Your task to perform on an android device: Search for Mexican restaurants on Maps Image 0: 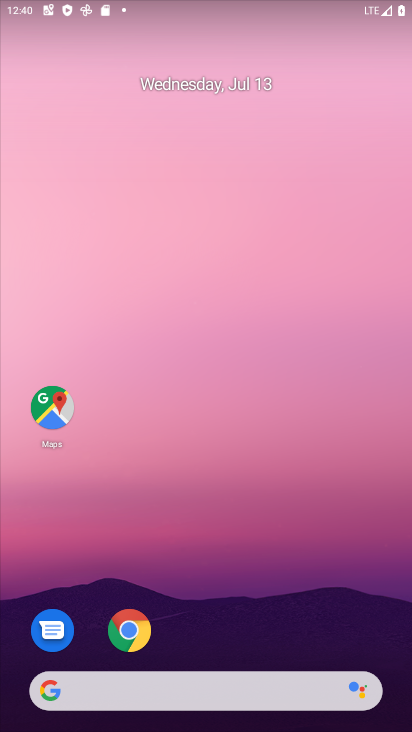
Step 0: drag from (367, 648) to (264, 29)
Your task to perform on an android device: Search for Mexican restaurants on Maps Image 1: 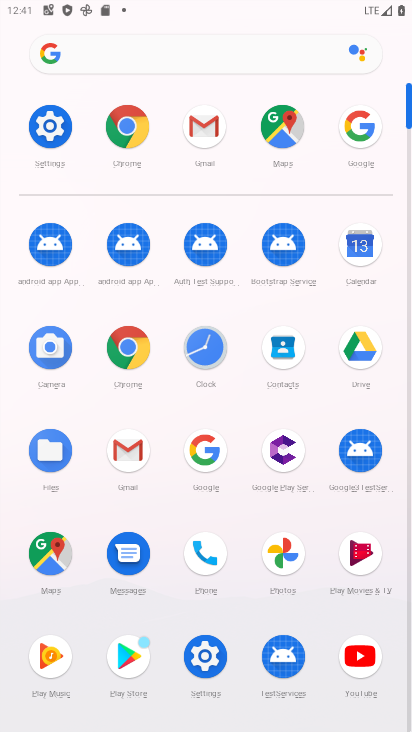
Step 1: click (36, 558)
Your task to perform on an android device: Search for Mexican restaurants on Maps Image 2: 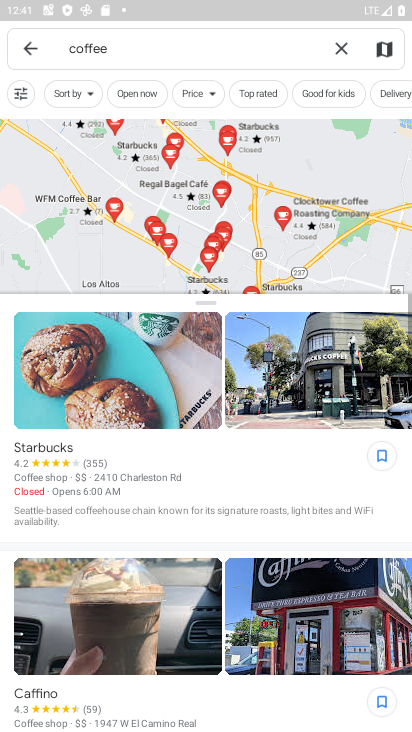
Step 2: click (328, 49)
Your task to perform on an android device: Search for Mexican restaurants on Maps Image 3: 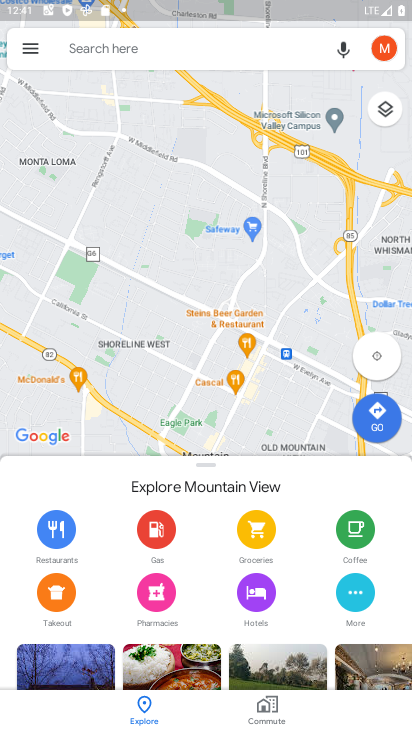
Step 3: click (143, 53)
Your task to perform on an android device: Search for Mexican restaurants on Maps Image 4: 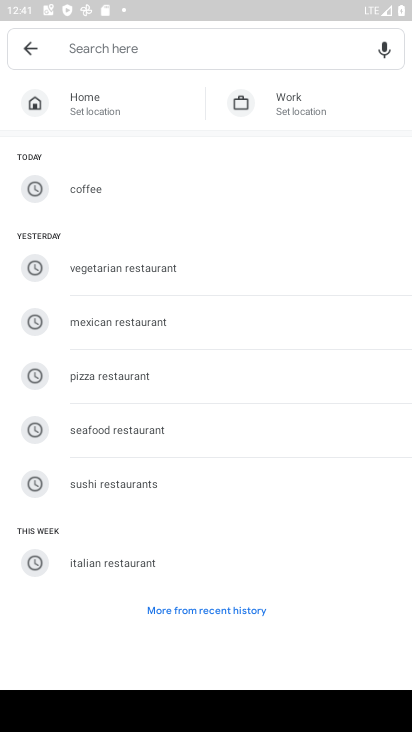
Step 4: click (93, 330)
Your task to perform on an android device: Search for Mexican restaurants on Maps Image 5: 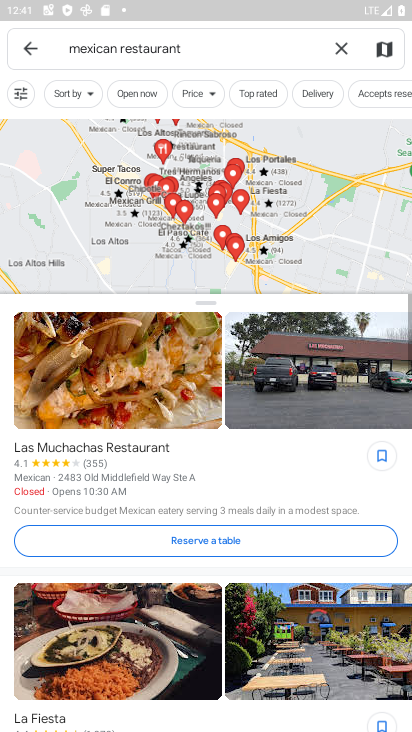
Step 5: task complete